Your task to perform on an android device: Go to display settings Image 0: 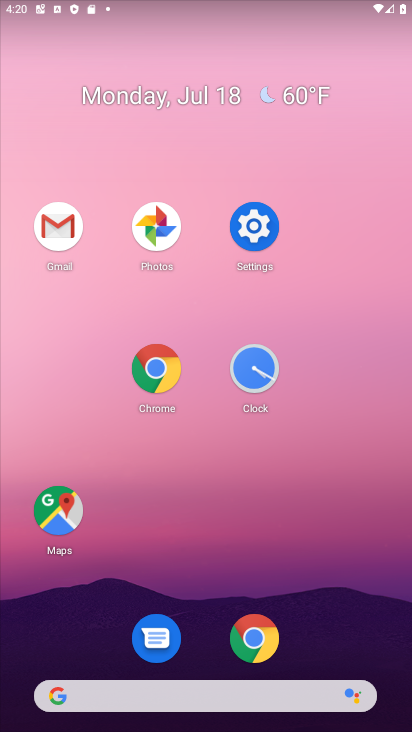
Step 0: click (239, 229)
Your task to perform on an android device: Go to display settings Image 1: 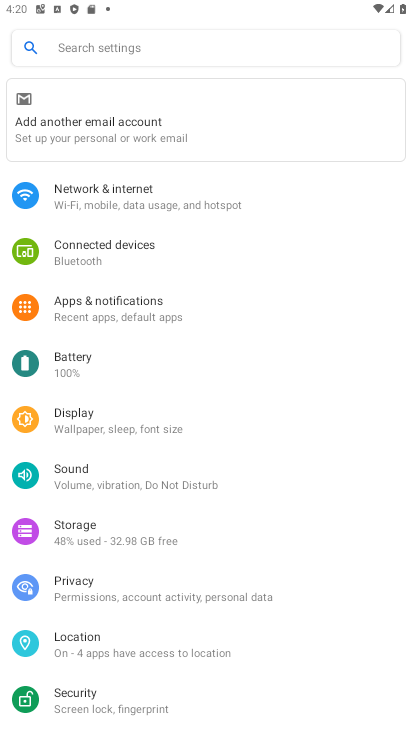
Step 1: click (136, 424)
Your task to perform on an android device: Go to display settings Image 2: 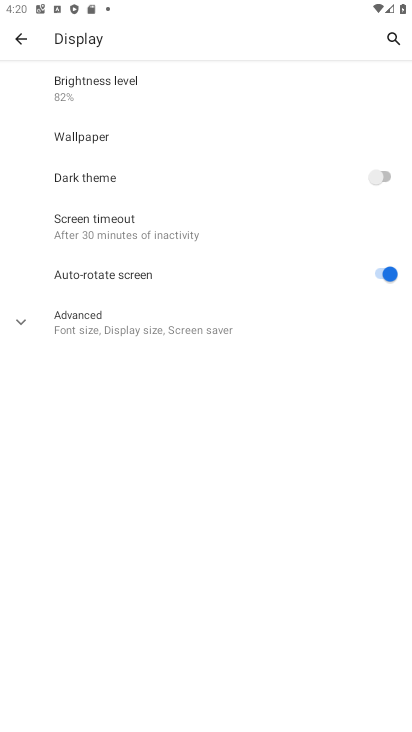
Step 2: task complete